Your task to perform on an android device: visit the assistant section in the google photos Image 0: 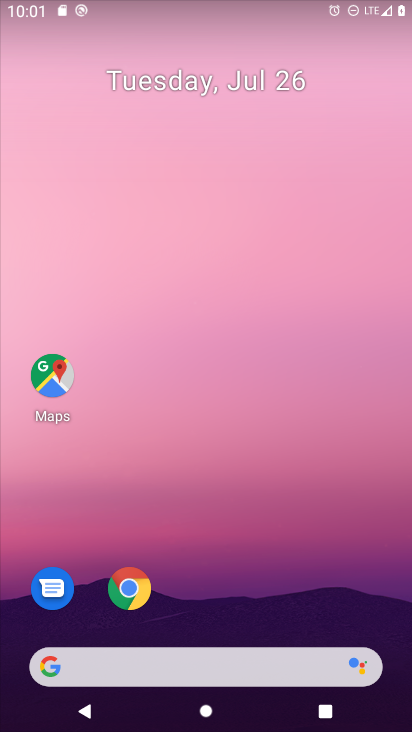
Step 0: drag from (190, 663) to (205, 32)
Your task to perform on an android device: visit the assistant section in the google photos Image 1: 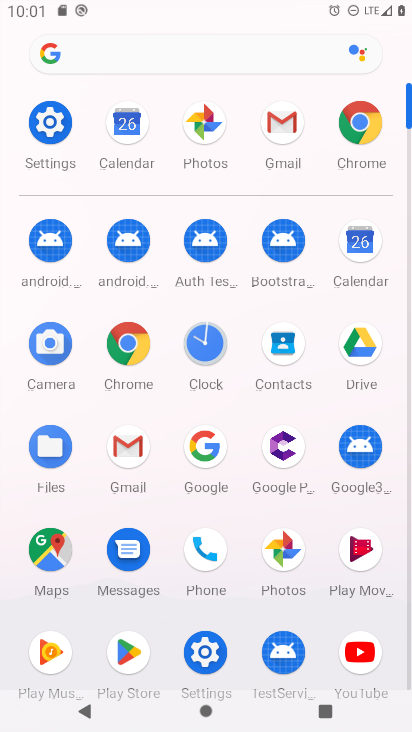
Step 1: click (277, 542)
Your task to perform on an android device: visit the assistant section in the google photos Image 2: 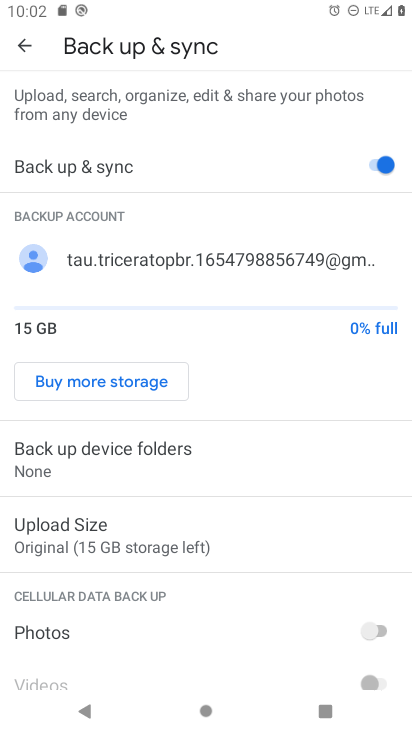
Step 2: click (23, 50)
Your task to perform on an android device: visit the assistant section in the google photos Image 3: 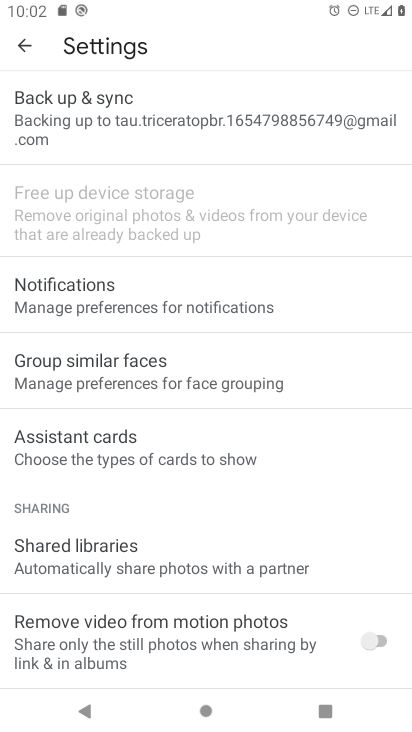
Step 3: click (25, 50)
Your task to perform on an android device: visit the assistant section in the google photos Image 4: 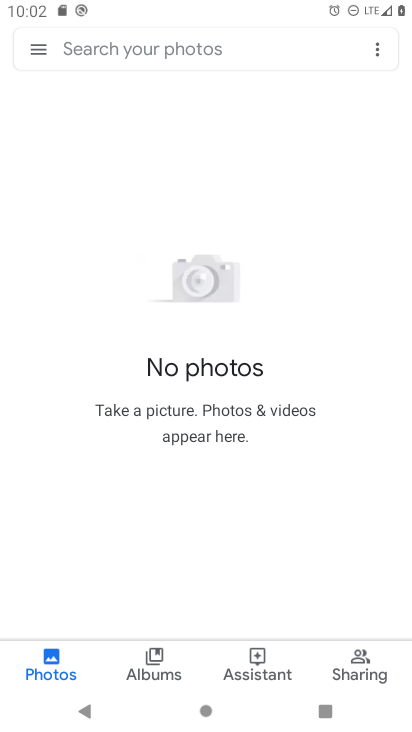
Step 4: click (32, 56)
Your task to perform on an android device: visit the assistant section in the google photos Image 5: 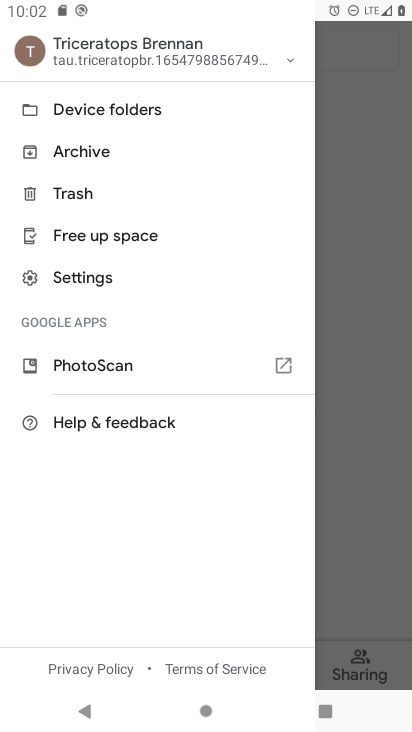
Step 5: click (377, 482)
Your task to perform on an android device: visit the assistant section in the google photos Image 6: 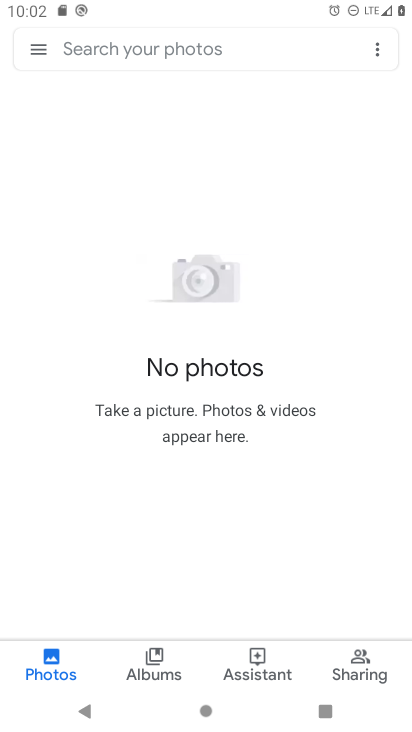
Step 6: click (275, 672)
Your task to perform on an android device: visit the assistant section in the google photos Image 7: 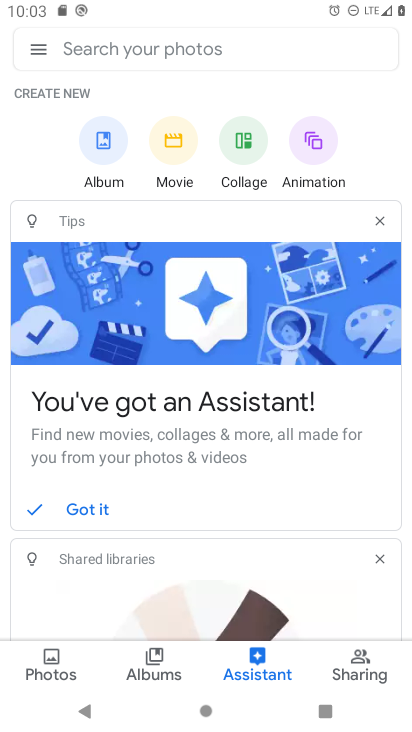
Step 7: task complete